Your task to perform on an android device: turn off improve location accuracy Image 0: 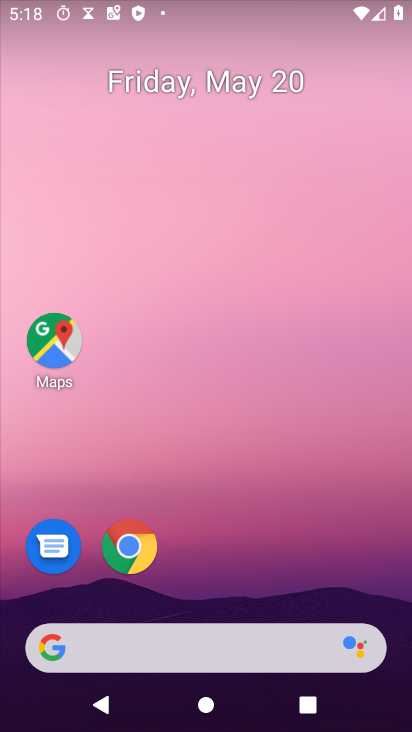
Step 0: drag from (256, 579) to (236, 156)
Your task to perform on an android device: turn off improve location accuracy Image 1: 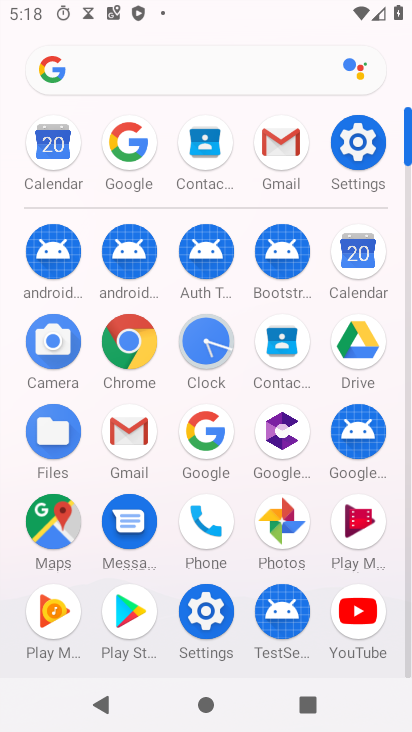
Step 1: click (357, 143)
Your task to perform on an android device: turn off improve location accuracy Image 2: 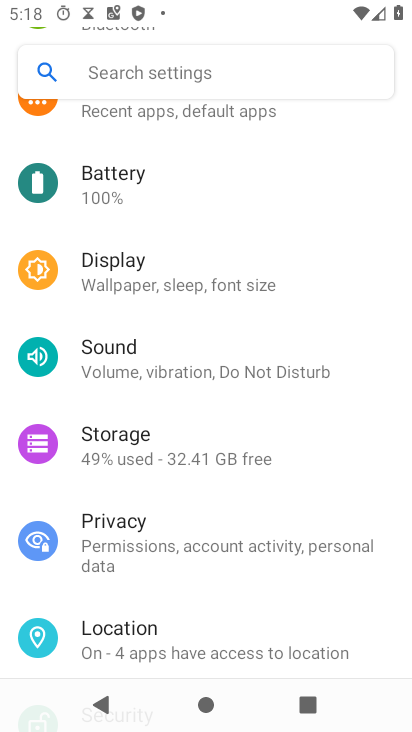
Step 2: drag from (222, 249) to (231, 330)
Your task to perform on an android device: turn off improve location accuracy Image 3: 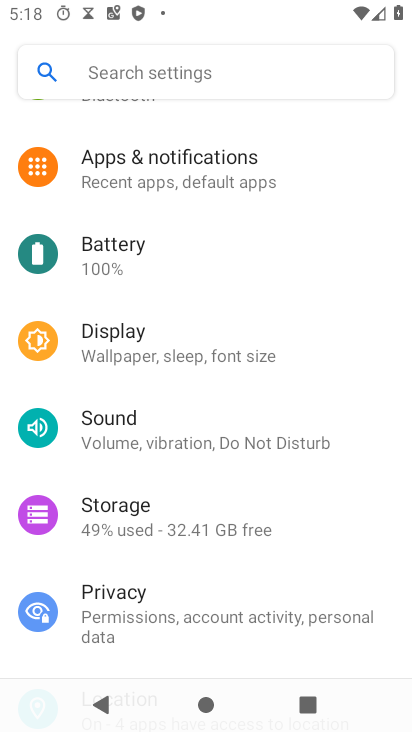
Step 3: drag from (185, 413) to (213, 340)
Your task to perform on an android device: turn off improve location accuracy Image 4: 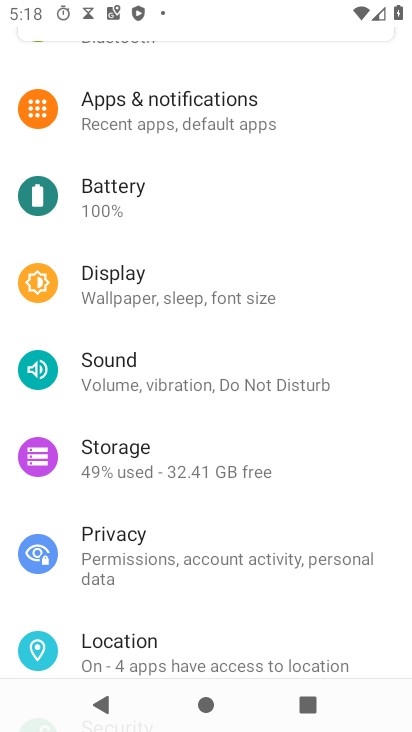
Step 4: drag from (177, 443) to (221, 343)
Your task to perform on an android device: turn off improve location accuracy Image 5: 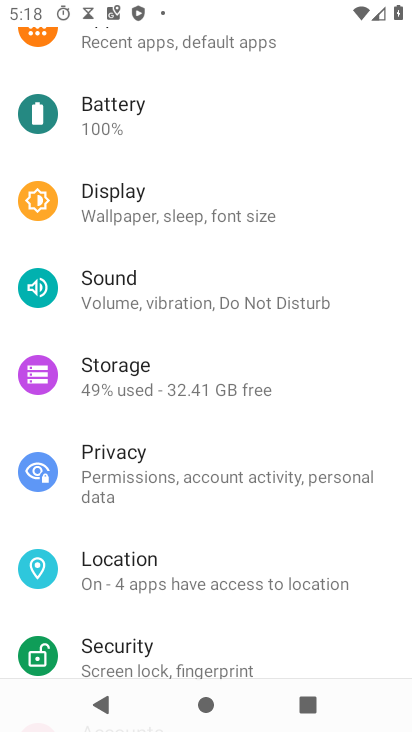
Step 5: click (175, 574)
Your task to perform on an android device: turn off improve location accuracy Image 6: 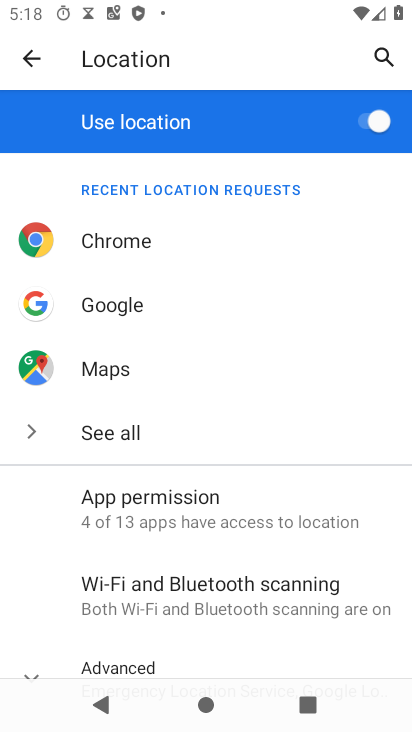
Step 6: drag from (196, 534) to (222, 349)
Your task to perform on an android device: turn off improve location accuracy Image 7: 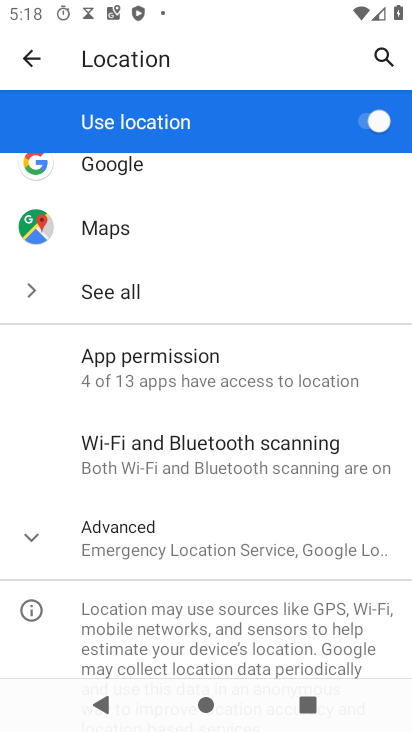
Step 7: click (186, 539)
Your task to perform on an android device: turn off improve location accuracy Image 8: 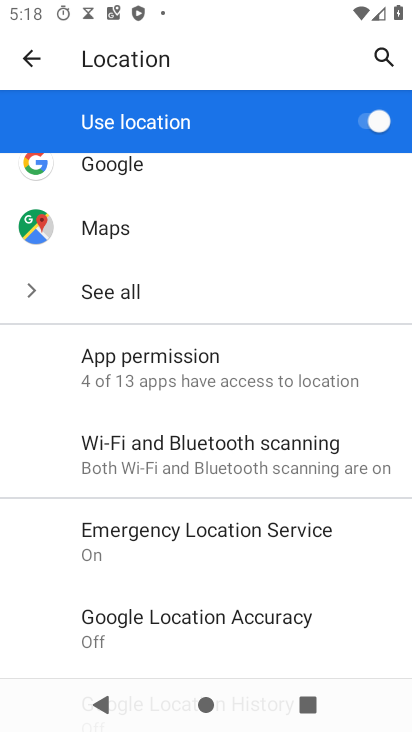
Step 8: drag from (171, 563) to (195, 471)
Your task to perform on an android device: turn off improve location accuracy Image 9: 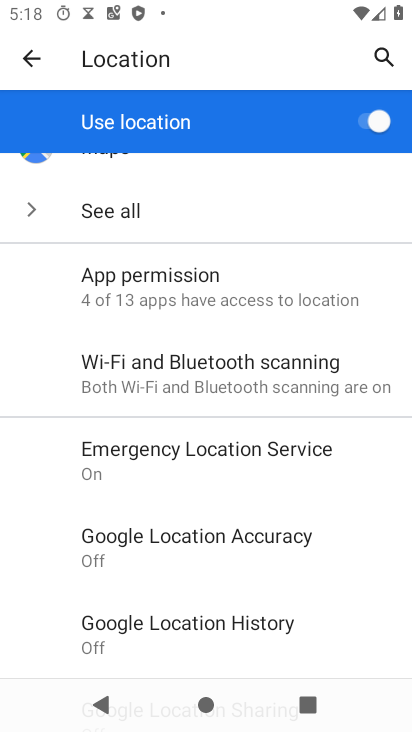
Step 9: click (202, 540)
Your task to perform on an android device: turn off improve location accuracy Image 10: 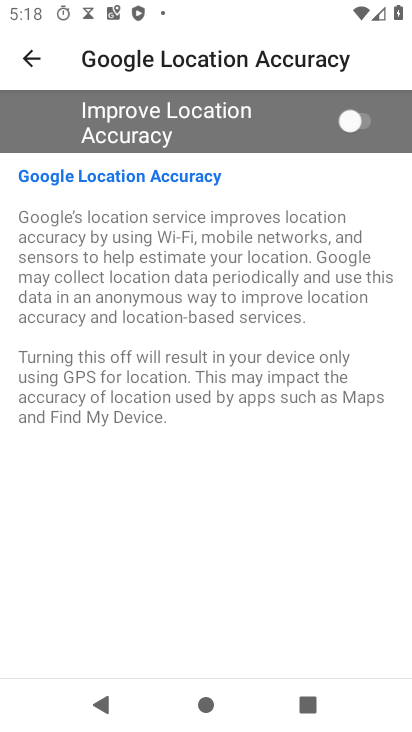
Step 10: task complete